Your task to perform on an android device: Go to Wikipedia Image 0: 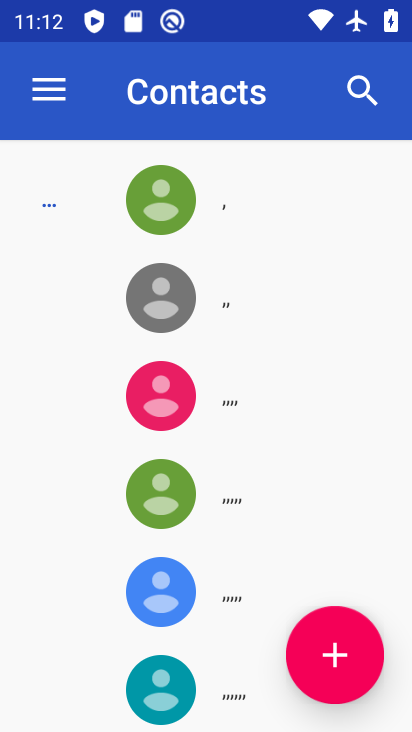
Step 0: press home button
Your task to perform on an android device: Go to Wikipedia Image 1: 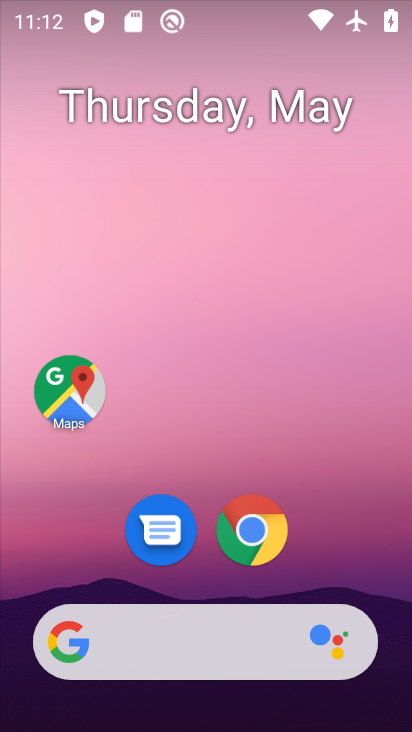
Step 1: click (254, 527)
Your task to perform on an android device: Go to Wikipedia Image 2: 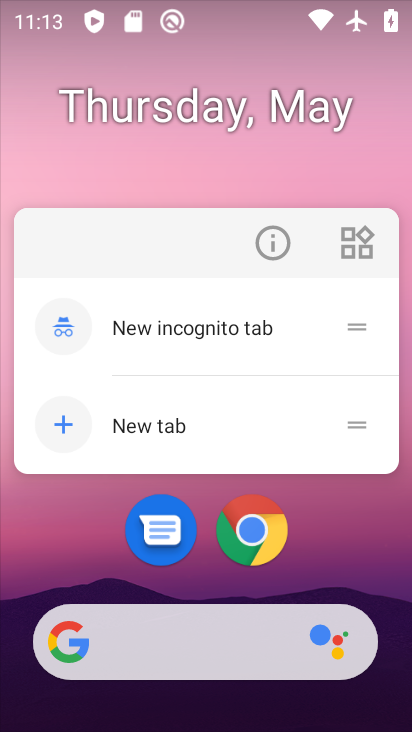
Step 2: click (254, 527)
Your task to perform on an android device: Go to Wikipedia Image 3: 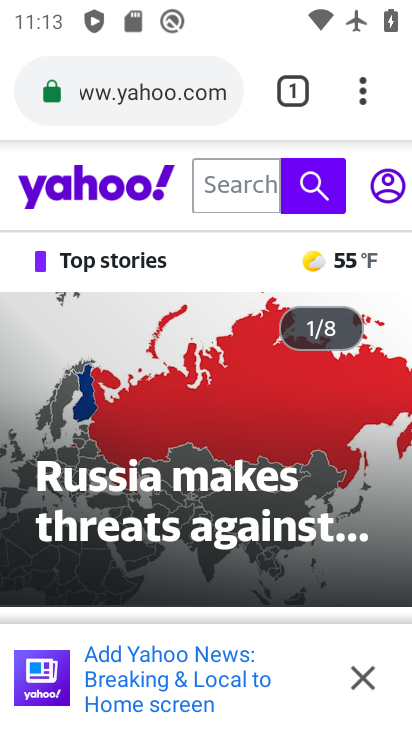
Step 3: click (192, 92)
Your task to perform on an android device: Go to Wikipedia Image 4: 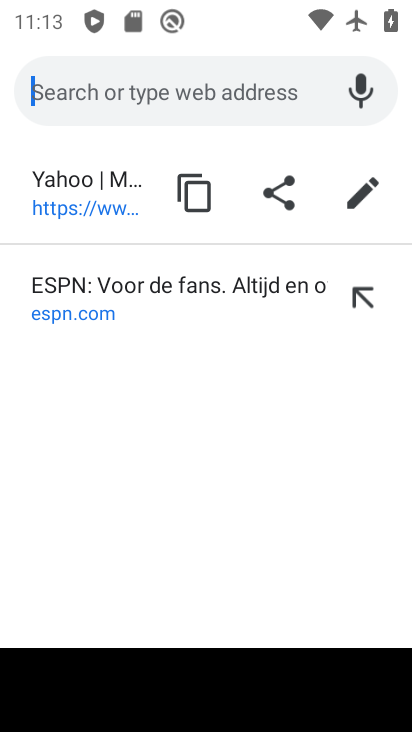
Step 4: type "wikipedia"
Your task to perform on an android device: Go to Wikipedia Image 5: 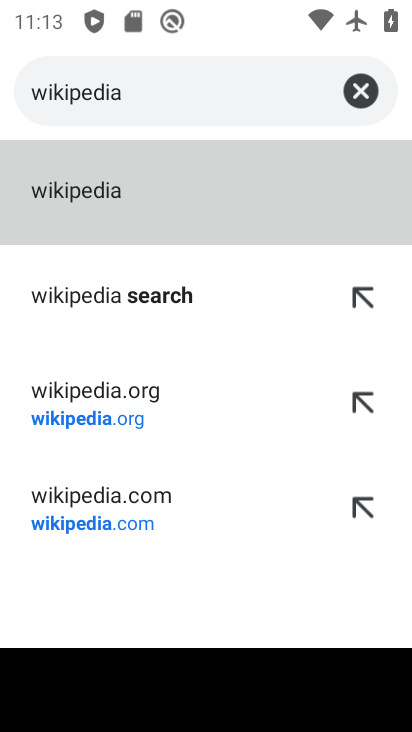
Step 5: click (47, 186)
Your task to perform on an android device: Go to Wikipedia Image 6: 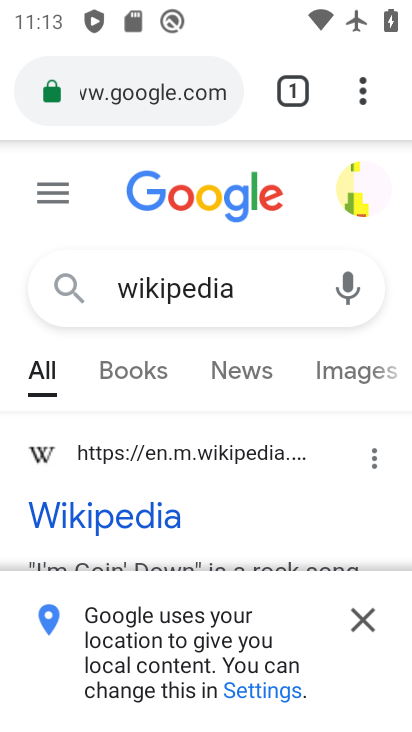
Step 6: click (93, 516)
Your task to perform on an android device: Go to Wikipedia Image 7: 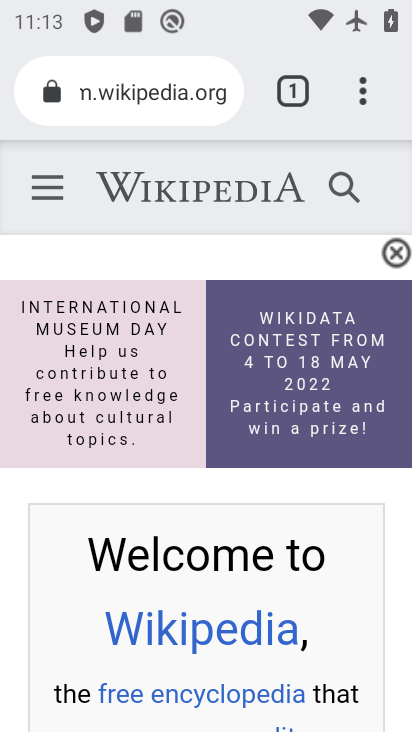
Step 7: task complete